Your task to perform on an android device: add a contact in the contacts app Image 0: 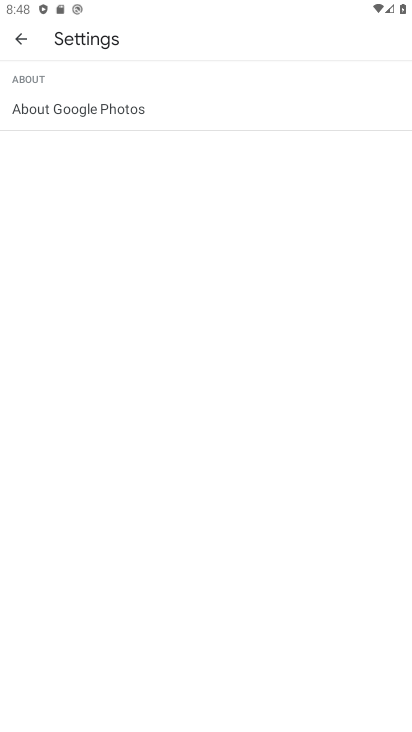
Step 0: drag from (197, 663) to (186, 197)
Your task to perform on an android device: add a contact in the contacts app Image 1: 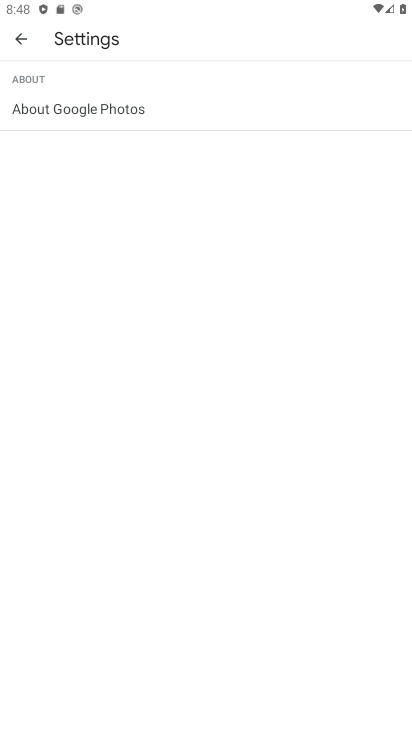
Step 1: press home button
Your task to perform on an android device: add a contact in the contacts app Image 2: 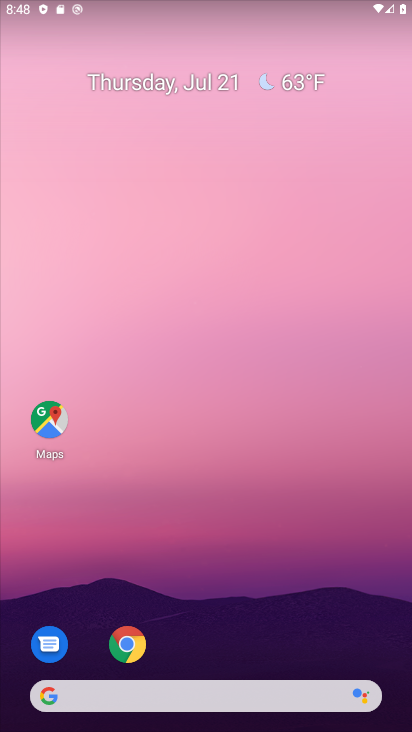
Step 2: drag from (246, 657) to (249, 47)
Your task to perform on an android device: add a contact in the contacts app Image 3: 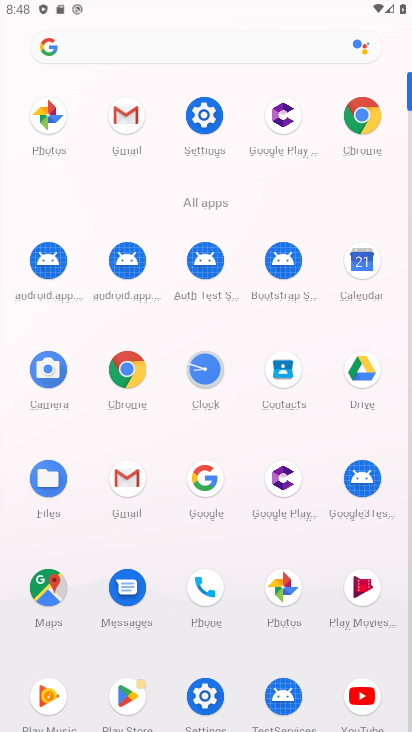
Step 3: click (280, 367)
Your task to perform on an android device: add a contact in the contacts app Image 4: 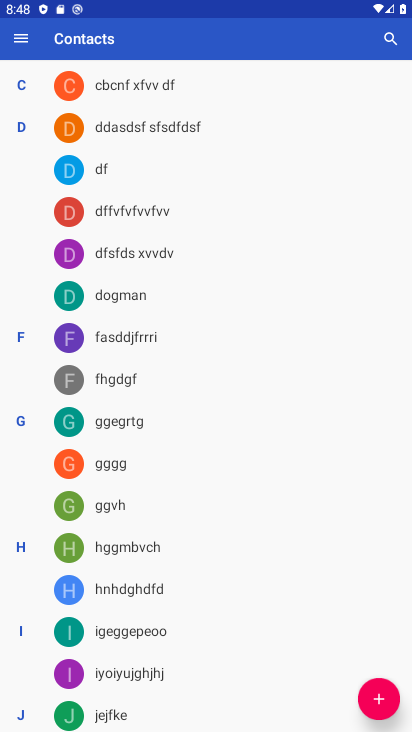
Step 4: click (380, 696)
Your task to perform on an android device: add a contact in the contacts app Image 5: 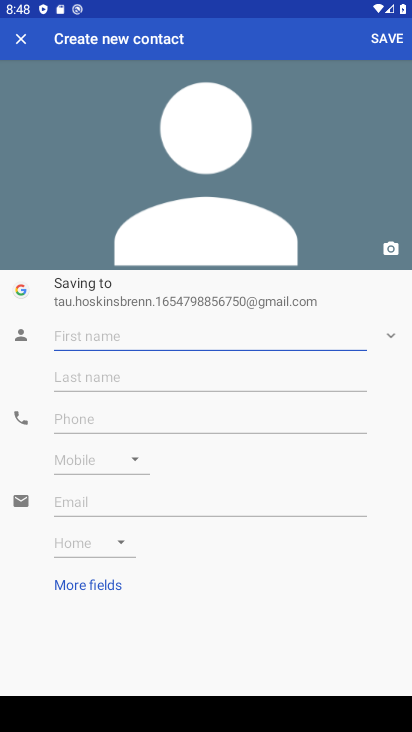
Step 5: type "aprnkt"
Your task to perform on an android device: add a contact in the contacts app Image 6: 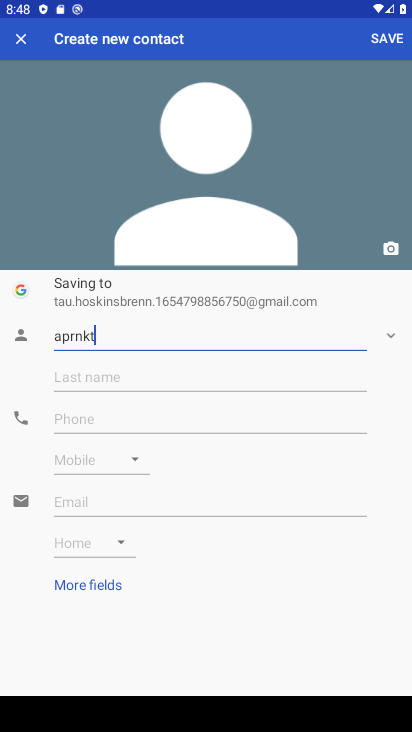
Step 6: click (387, 41)
Your task to perform on an android device: add a contact in the contacts app Image 7: 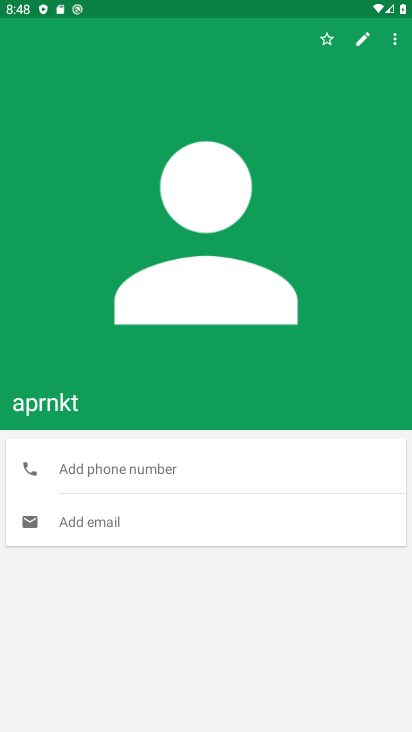
Step 7: task complete